Your task to perform on an android device: Go to Maps Image 0: 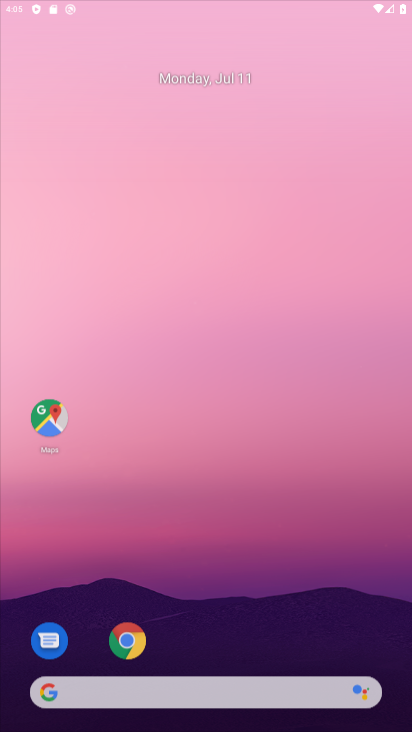
Step 0: click (49, 420)
Your task to perform on an android device: Go to Maps Image 1: 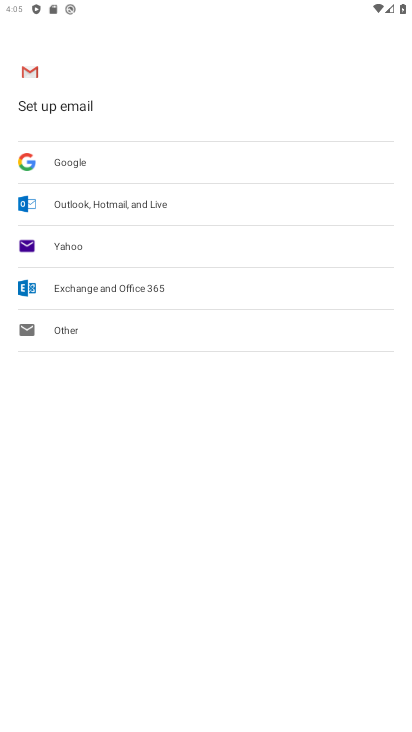
Step 1: press home button
Your task to perform on an android device: Go to Maps Image 2: 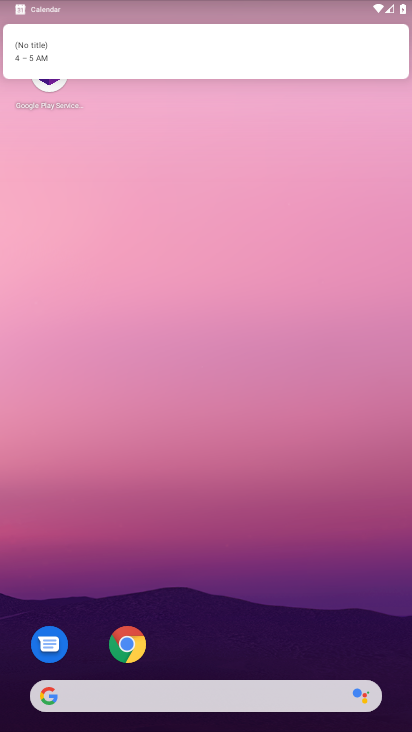
Step 2: drag from (17, 690) to (156, 238)
Your task to perform on an android device: Go to Maps Image 3: 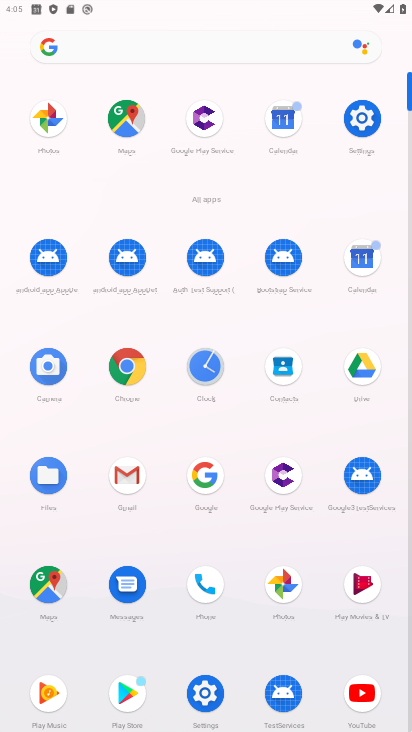
Step 3: click (46, 604)
Your task to perform on an android device: Go to Maps Image 4: 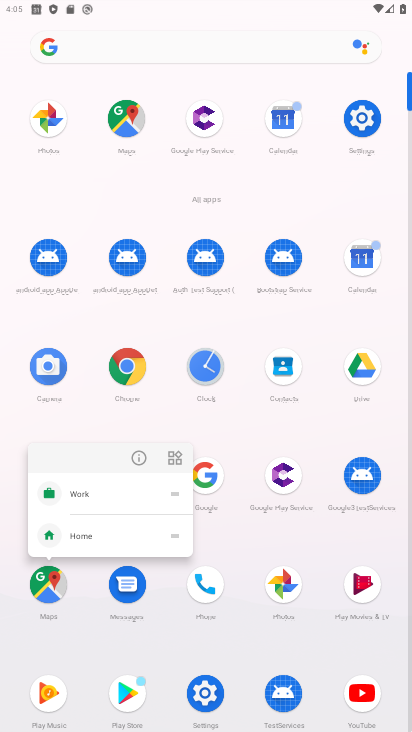
Step 4: click (52, 586)
Your task to perform on an android device: Go to Maps Image 5: 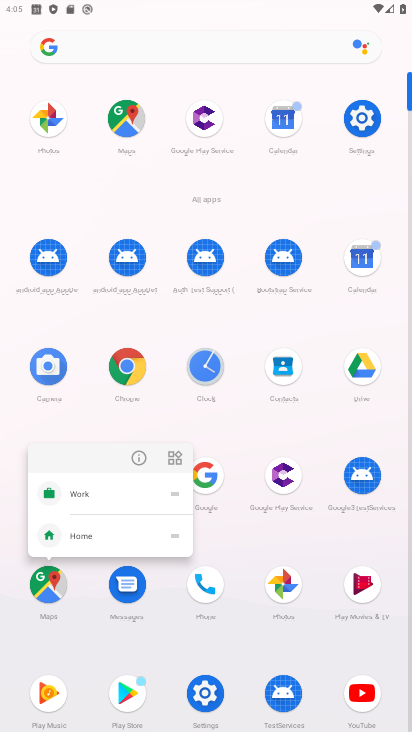
Step 5: click (48, 581)
Your task to perform on an android device: Go to Maps Image 6: 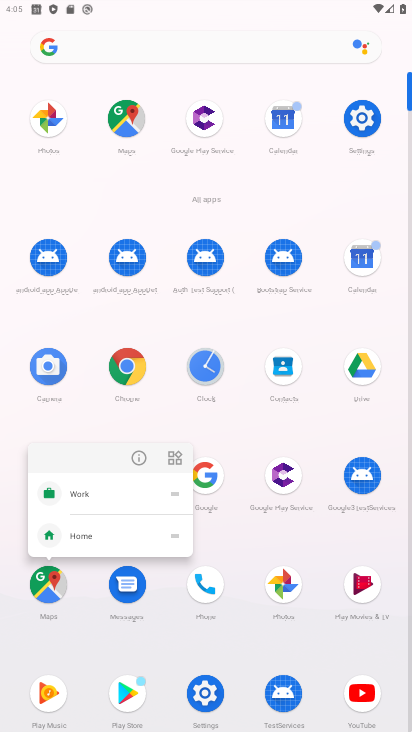
Step 6: click (47, 595)
Your task to perform on an android device: Go to Maps Image 7: 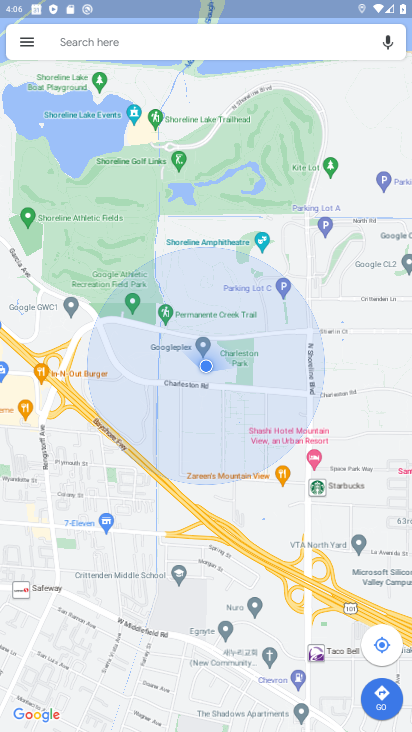
Step 7: task complete